Your task to perform on an android device: Search for vegetarian restaurants on Maps Image 0: 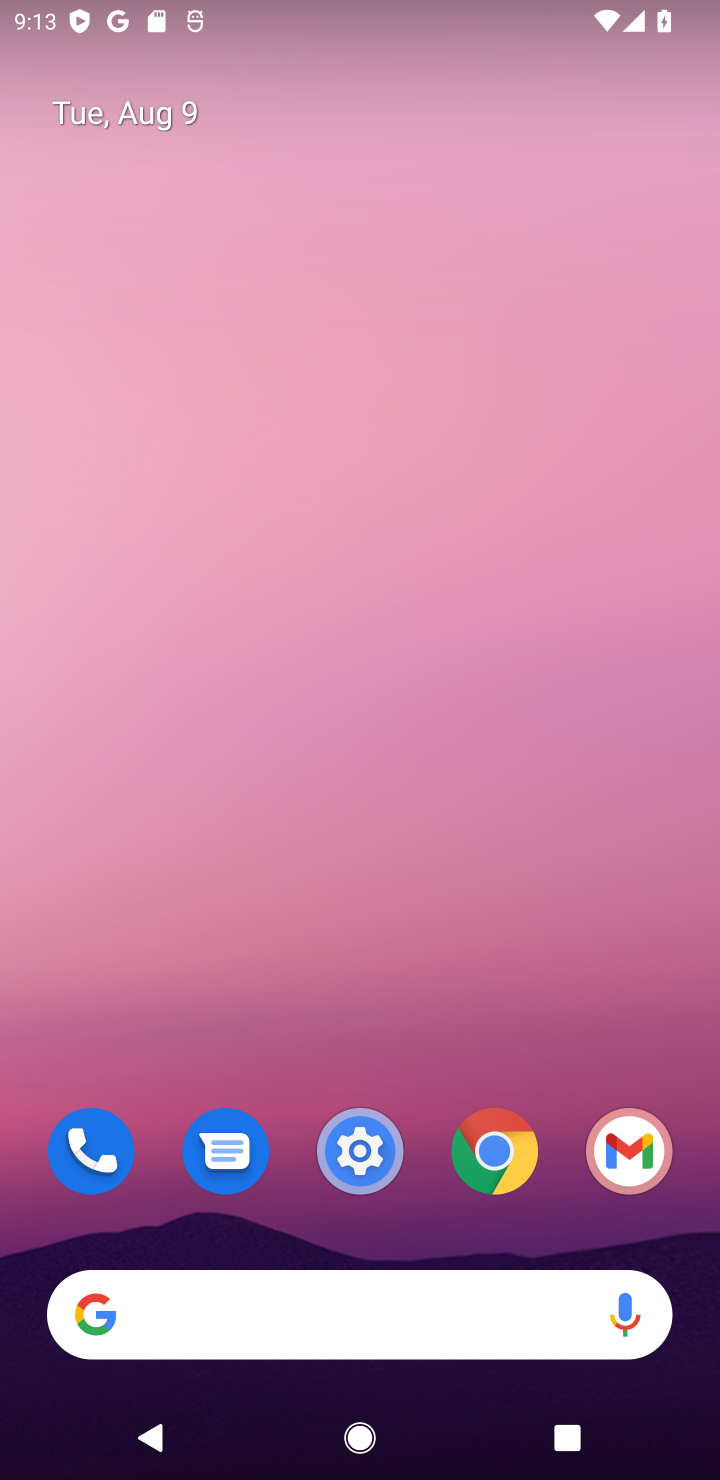
Step 0: click (719, 1084)
Your task to perform on an android device: Search for vegetarian restaurants on Maps Image 1: 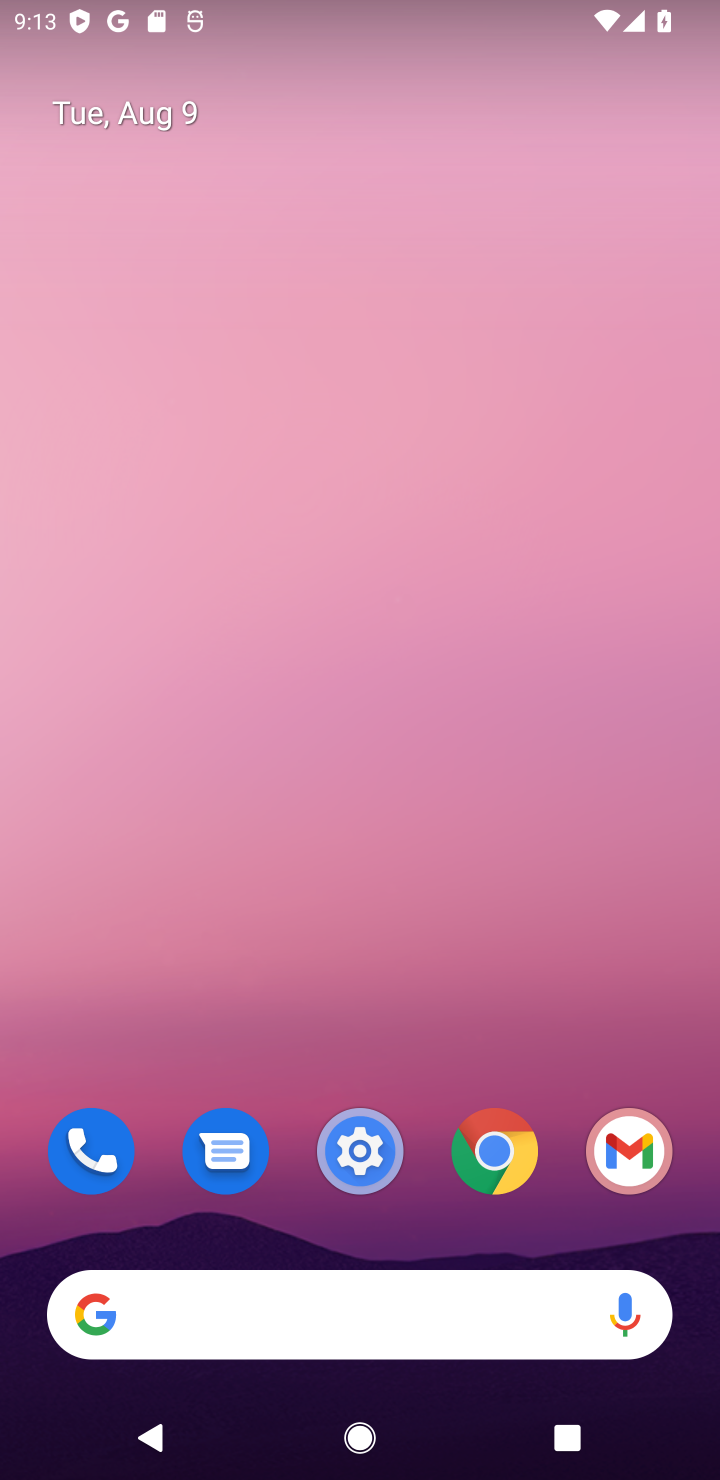
Step 1: drag from (397, 1214) to (333, 370)
Your task to perform on an android device: Search for vegetarian restaurants on Maps Image 2: 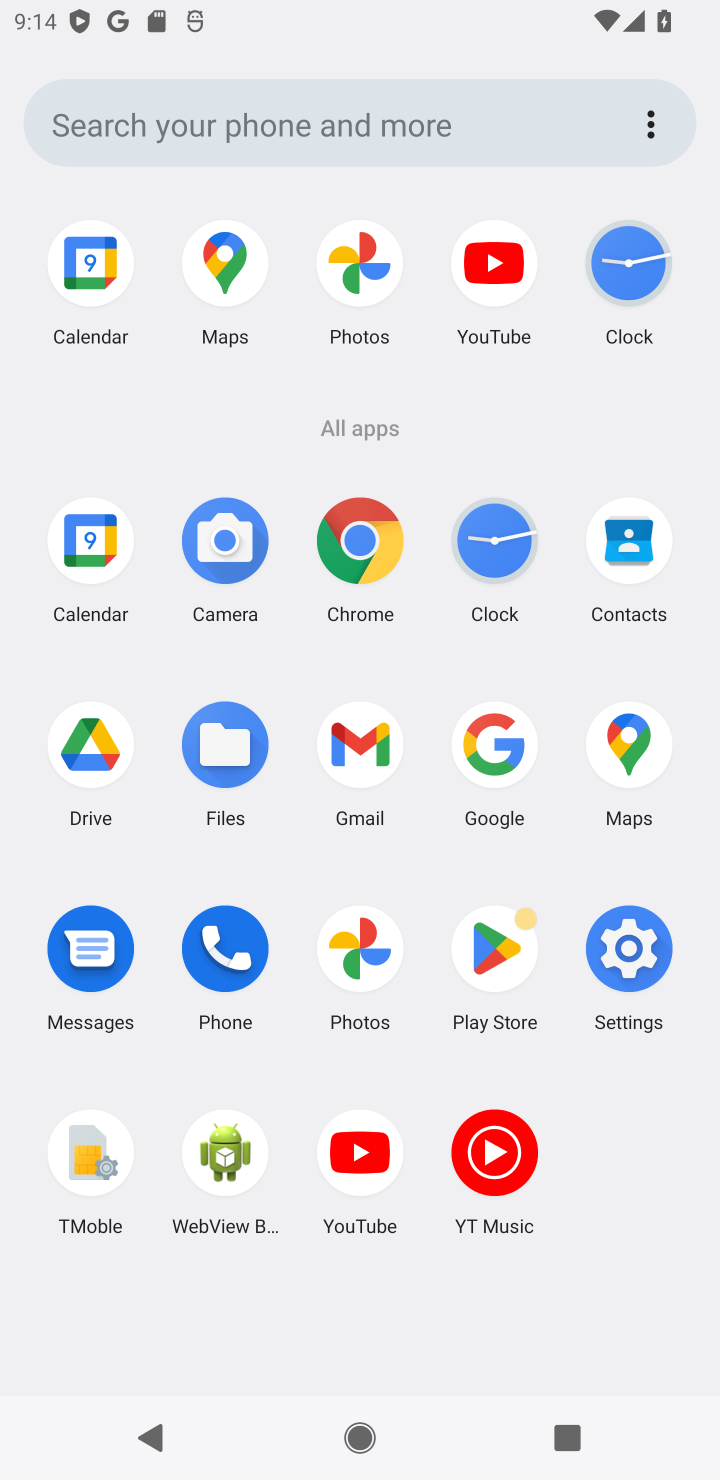
Step 2: click (629, 746)
Your task to perform on an android device: Search for vegetarian restaurants on Maps Image 3: 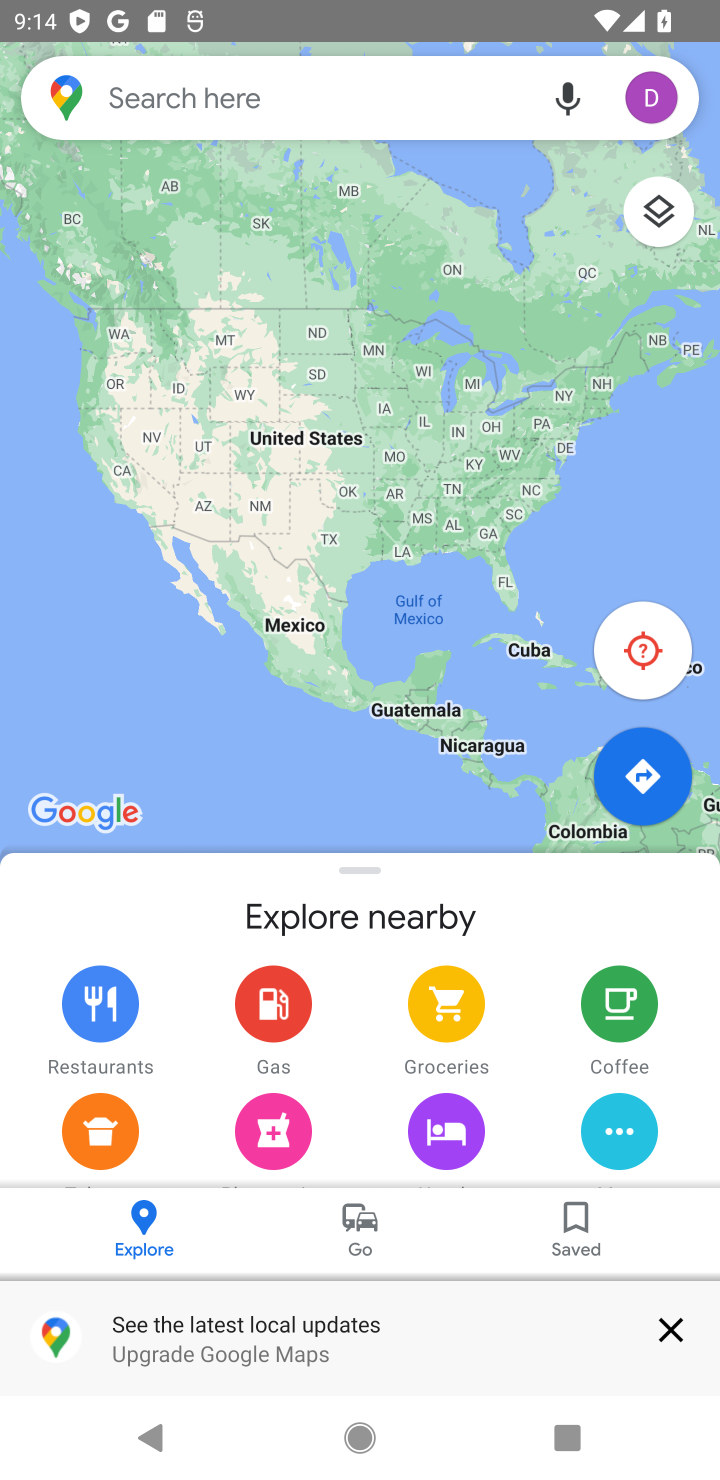
Step 3: click (365, 81)
Your task to perform on an android device: Search for vegetarian restaurants on Maps Image 4: 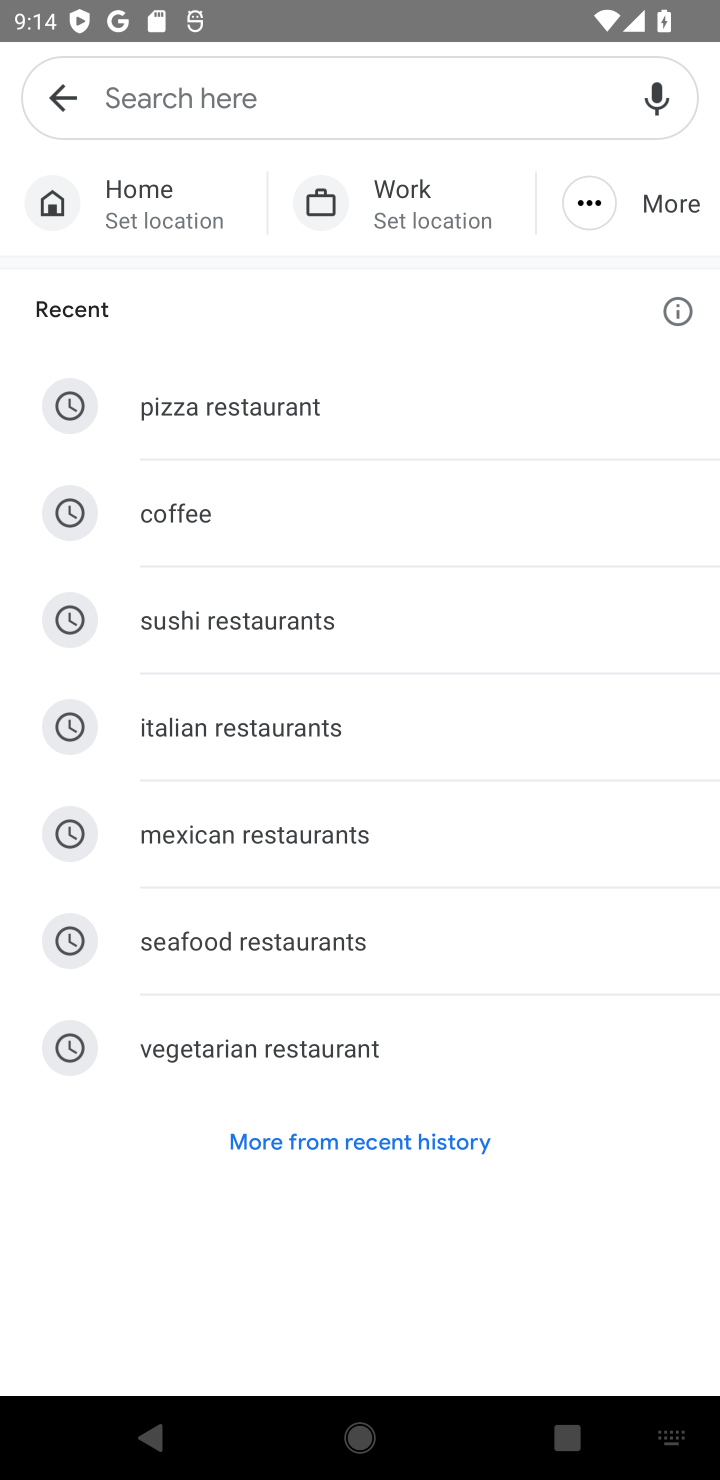
Step 4: click (265, 1044)
Your task to perform on an android device: Search for vegetarian restaurants on Maps Image 5: 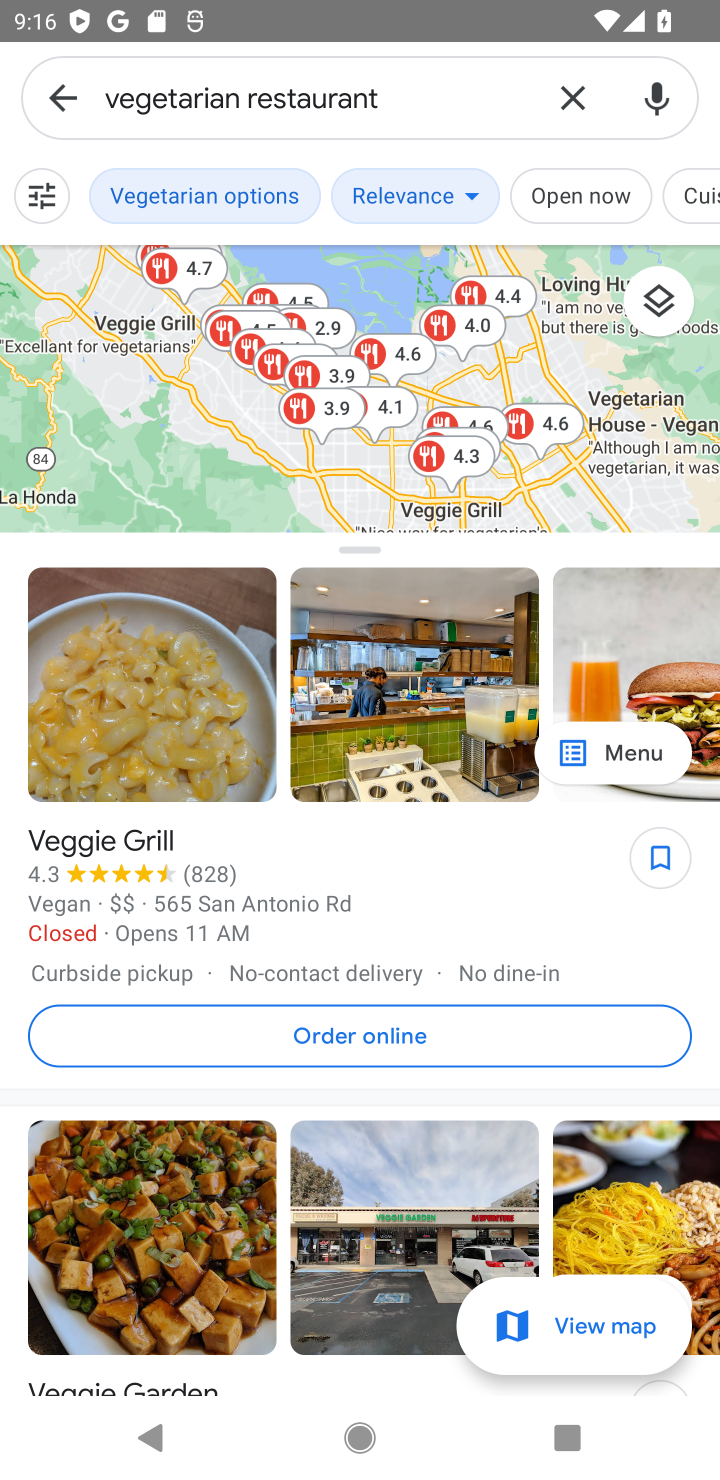
Step 5: task complete